Your task to perform on an android device: change keyboard looks Image 0: 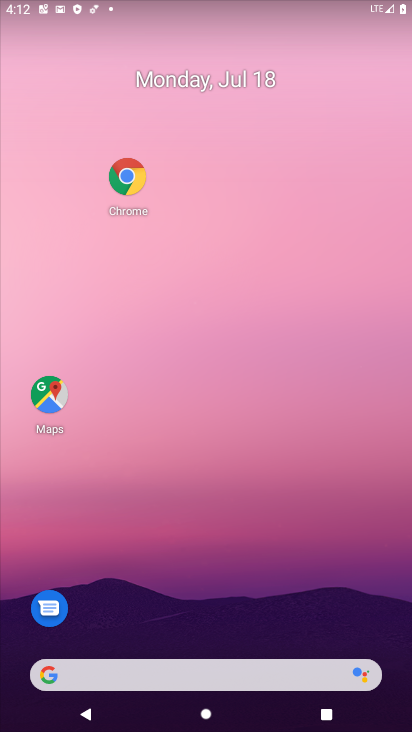
Step 0: drag from (233, 599) to (243, 210)
Your task to perform on an android device: change keyboard looks Image 1: 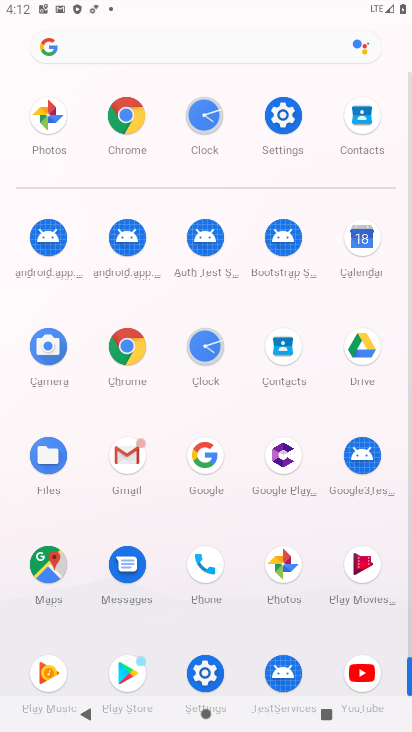
Step 1: click (290, 122)
Your task to perform on an android device: change keyboard looks Image 2: 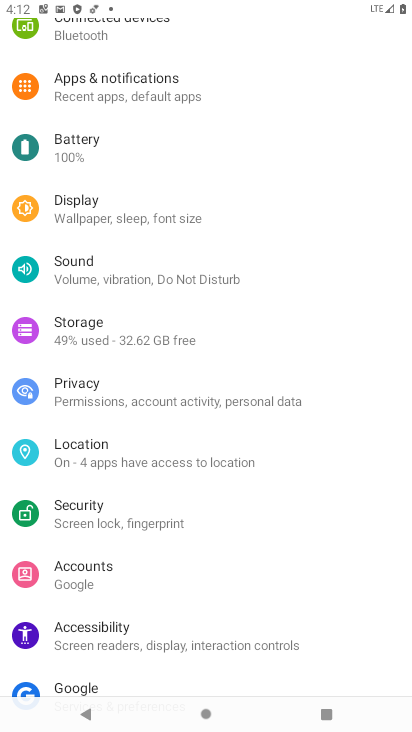
Step 2: drag from (146, 576) to (181, 260)
Your task to perform on an android device: change keyboard looks Image 3: 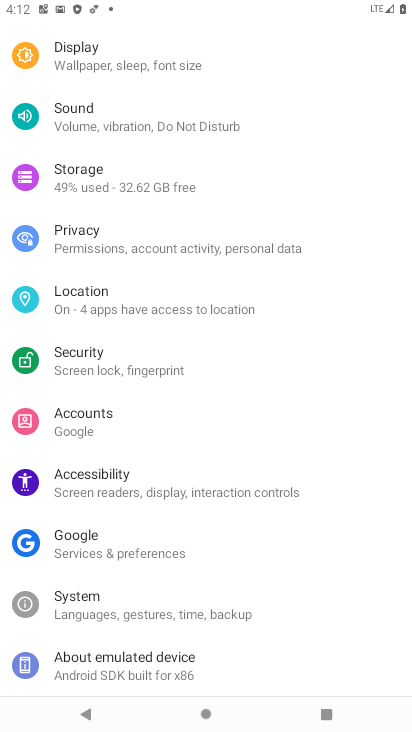
Step 3: click (144, 634)
Your task to perform on an android device: change keyboard looks Image 4: 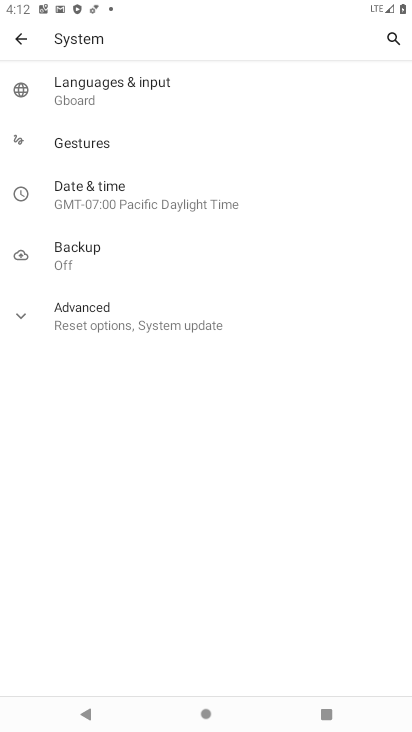
Step 4: click (165, 108)
Your task to perform on an android device: change keyboard looks Image 5: 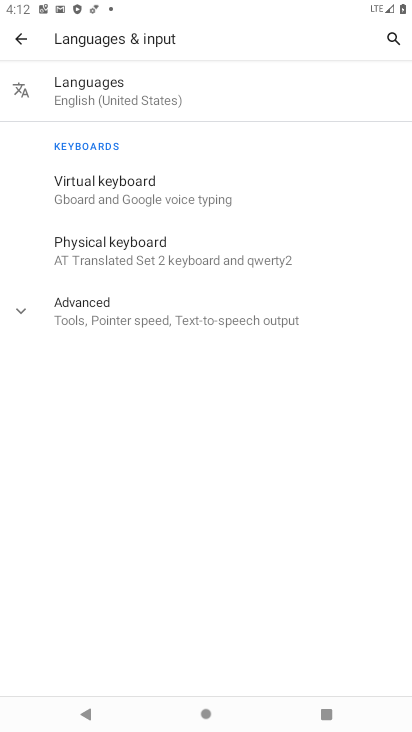
Step 5: click (156, 195)
Your task to perform on an android device: change keyboard looks Image 6: 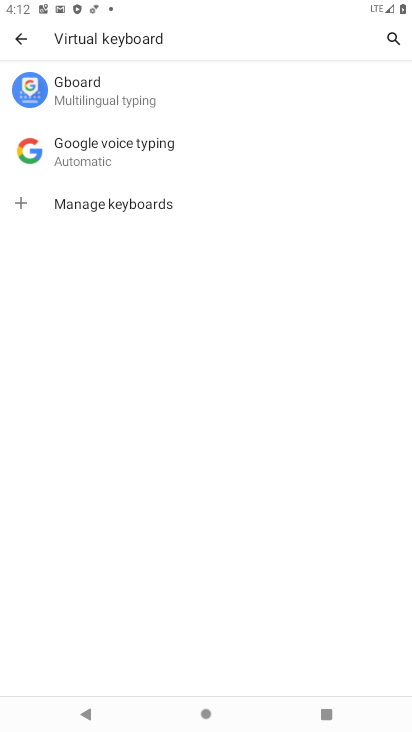
Step 6: click (146, 107)
Your task to perform on an android device: change keyboard looks Image 7: 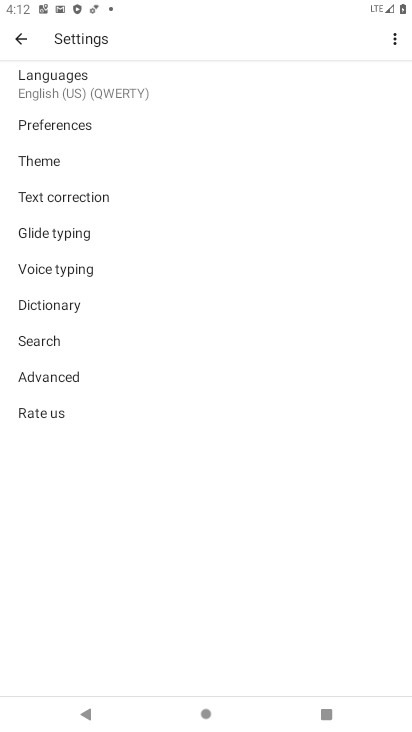
Step 7: click (45, 162)
Your task to perform on an android device: change keyboard looks Image 8: 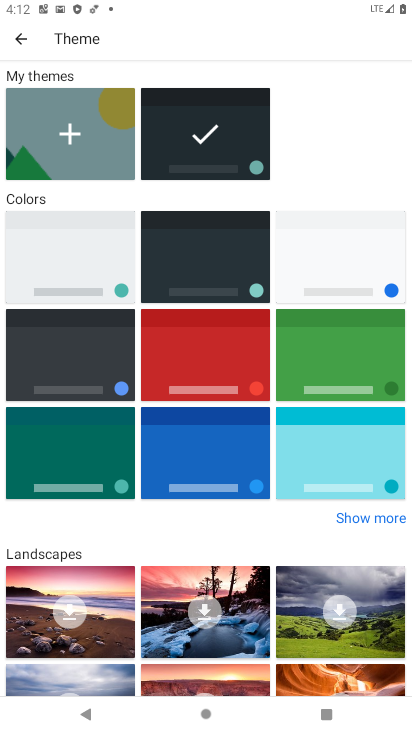
Step 8: click (190, 374)
Your task to perform on an android device: change keyboard looks Image 9: 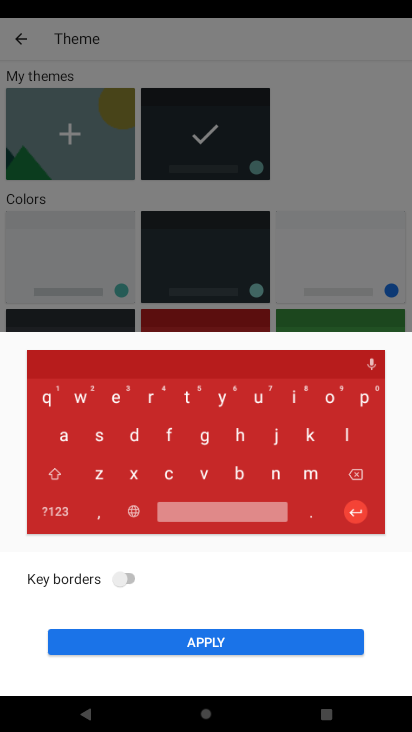
Step 9: click (258, 647)
Your task to perform on an android device: change keyboard looks Image 10: 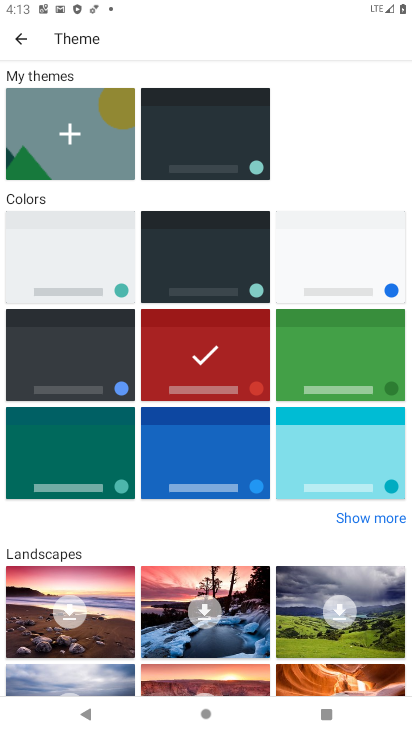
Step 10: task complete